Your task to perform on an android device: open chrome privacy settings Image 0: 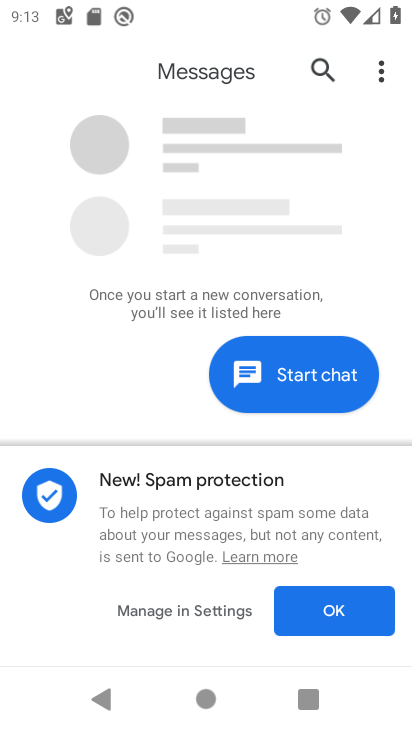
Step 0: press back button
Your task to perform on an android device: open chrome privacy settings Image 1: 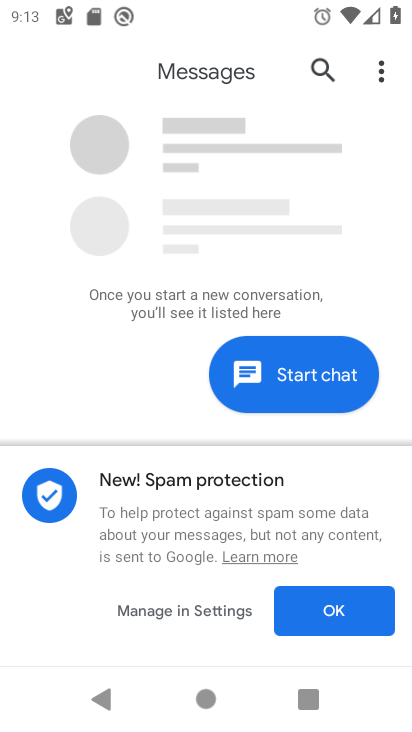
Step 1: press back button
Your task to perform on an android device: open chrome privacy settings Image 2: 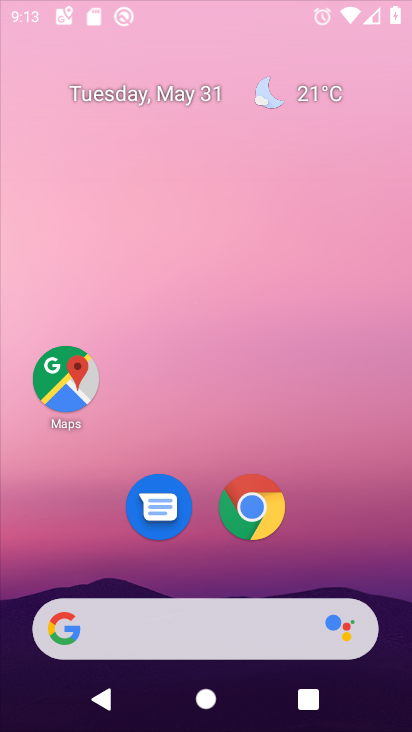
Step 2: press back button
Your task to perform on an android device: open chrome privacy settings Image 3: 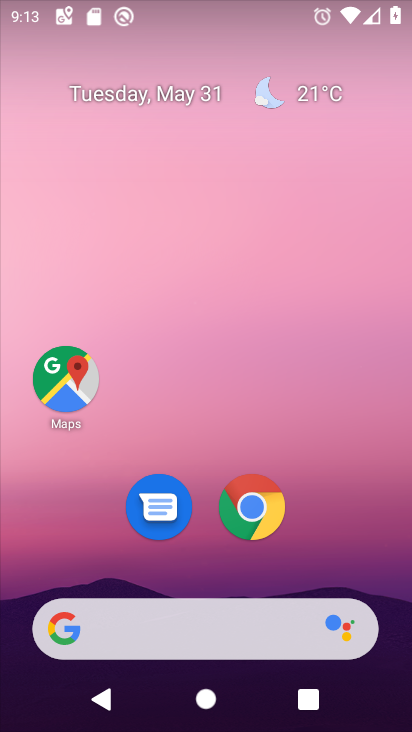
Step 3: drag from (233, 686) to (242, 26)
Your task to perform on an android device: open chrome privacy settings Image 4: 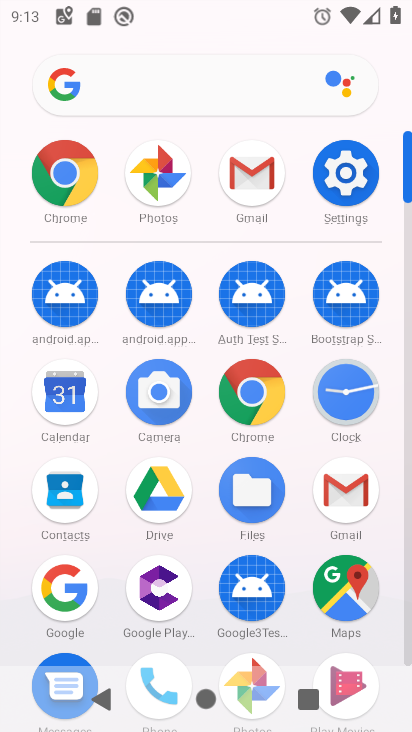
Step 4: click (350, 186)
Your task to perform on an android device: open chrome privacy settings Image 5: 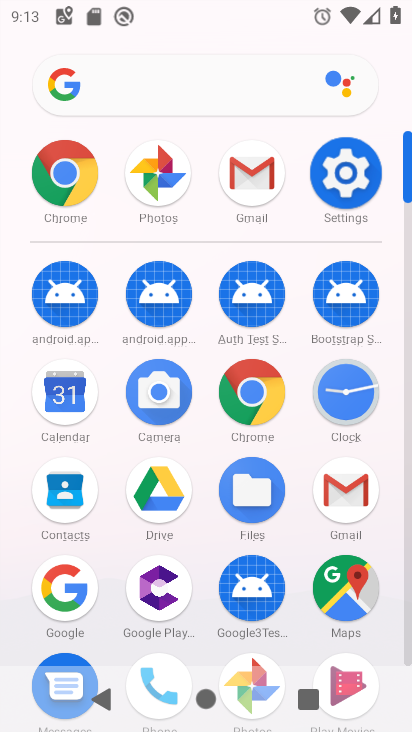
Step 5: click (351, 205)
Your task to perform on an android device: open chrome privacy settings Image 6: 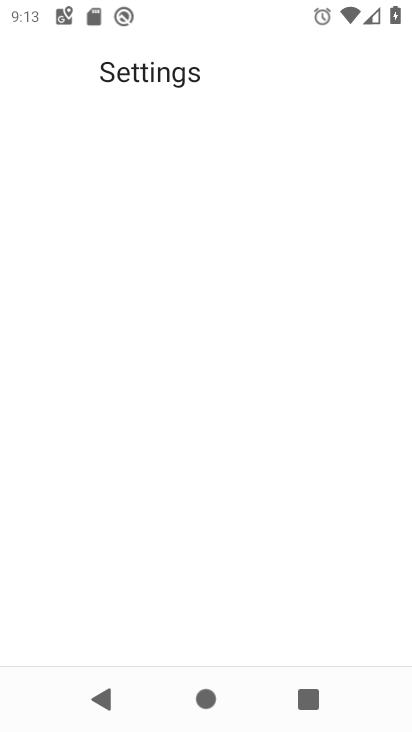
Step 6: click (352, 206)
Your task to perform on an android device: open chrome privacy settings Image 7: 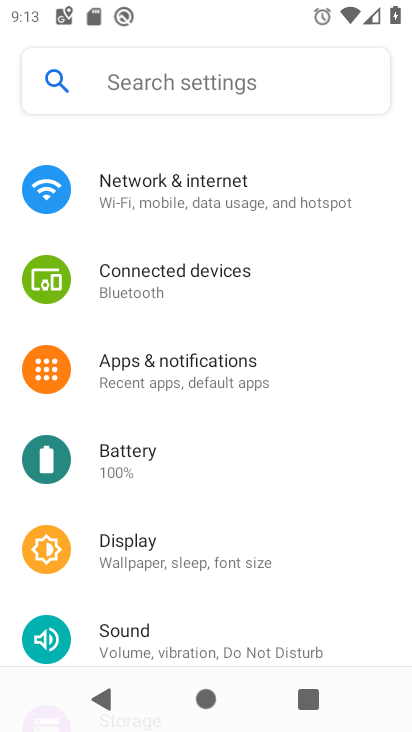
Step 7: click (356, 205)
Your task to perform on an android device: open chrome privacy settings Image 8: 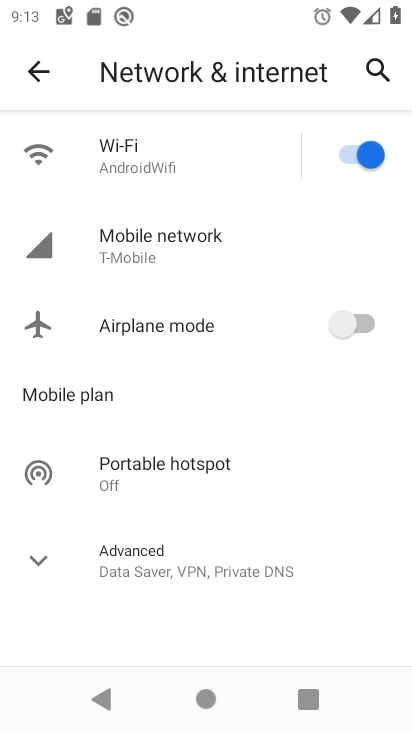
Step 8: click (38, 70)
Your task to perform on an android device: open chrome privacy settings Image 9: 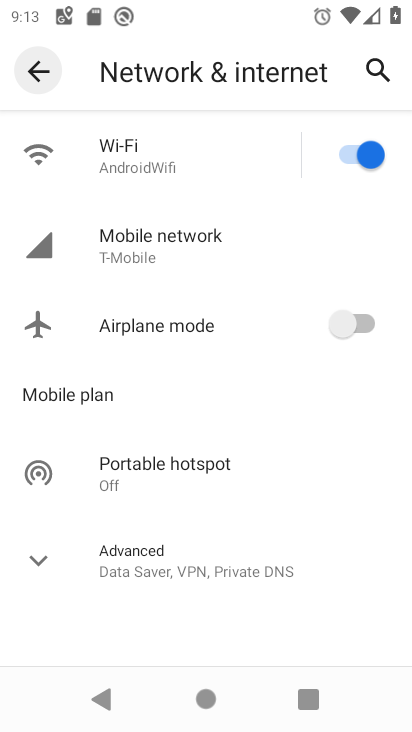
Step 9: click (37, 71)
Your task to perform on an android device: open chrome privacy settings Image 10: 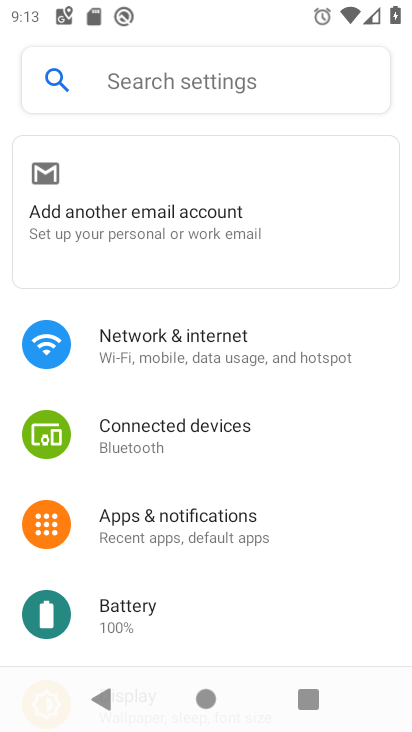
Step 10: press home button
Your task to perform on an android device: open chrome privacy settings Image 11: 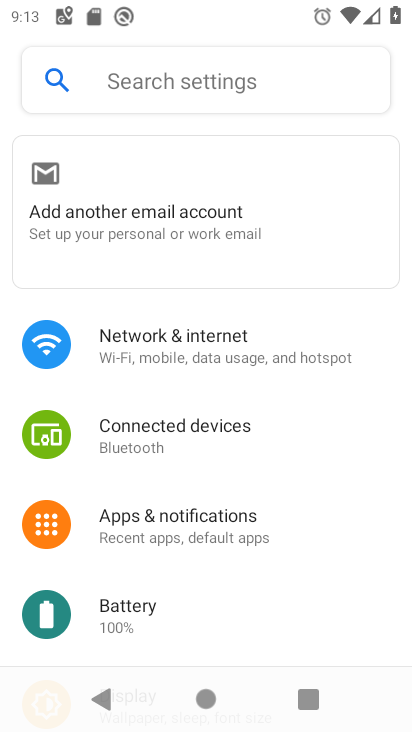
Step 11: press home button
Your task to perform on an android device: open chrome privacy settings Image 12: 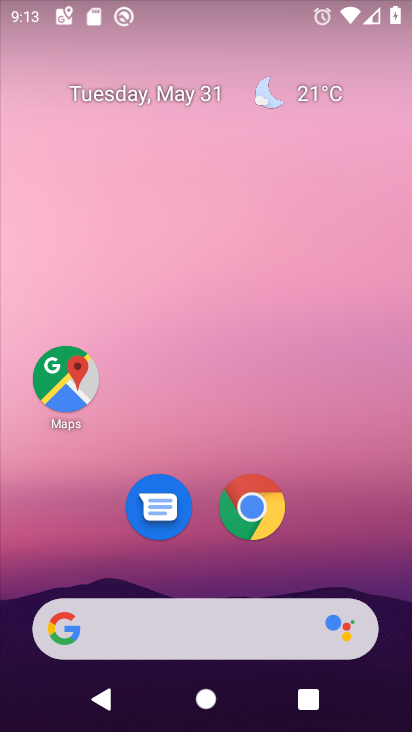
Step 12: drag from (265, 603) to (231, 38)
Your task to perform on an android device: open chrome privacy settings Image 13: 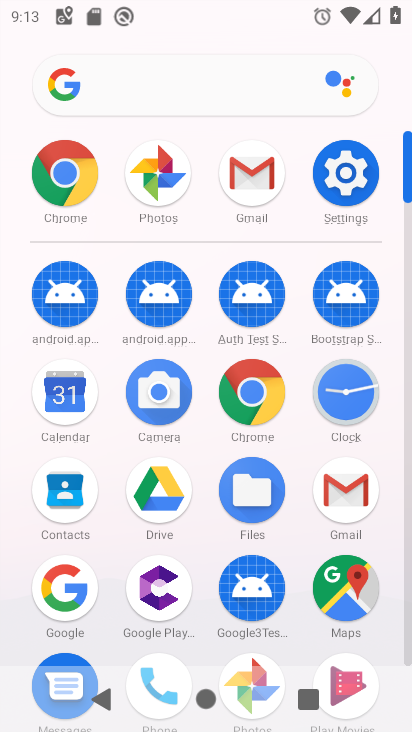
Step 13: click (60, 186)
Your task to perform on an android device: open chrome privacy settings Image 14: 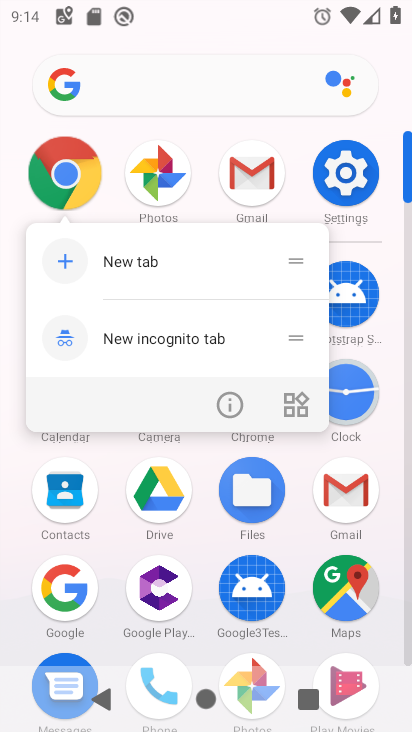
Step 14: click (61, 186)
Your task to perform on an android device: open chrome privacy settings Image 15: 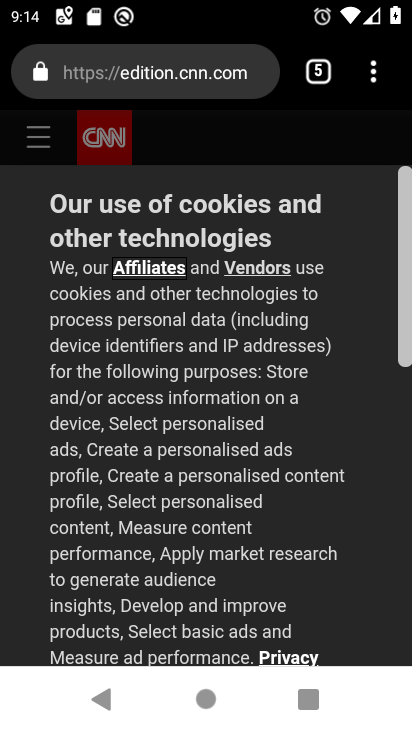
Step 15: drag from (372, 77) to (130, 511)
Your task to perform on an android device: open chrome privacy settings Image 16: 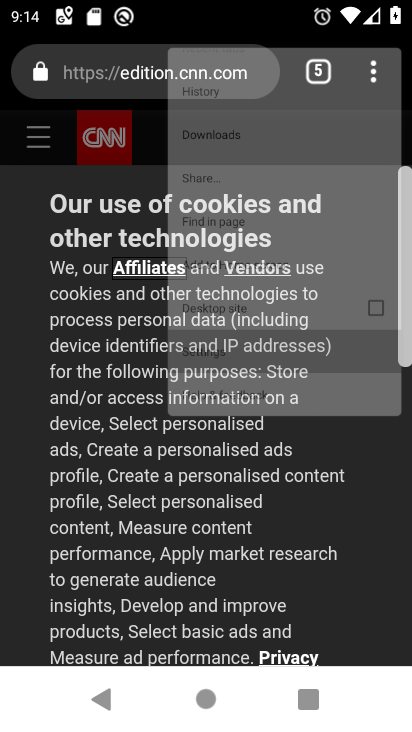
Step 16: click (131, 510)
Your task to perform on an android device: open chrome privacy settings Image 17: 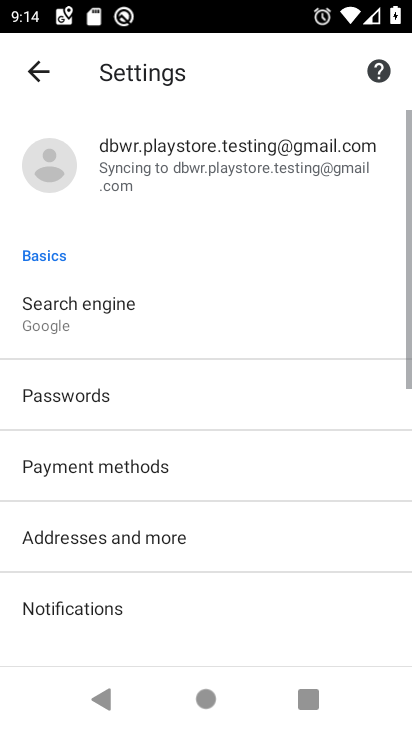
Step 17: drag from (122, 530) to (79, 149)
Your task to perform on an android device: open chrome privacy settings Image 18: 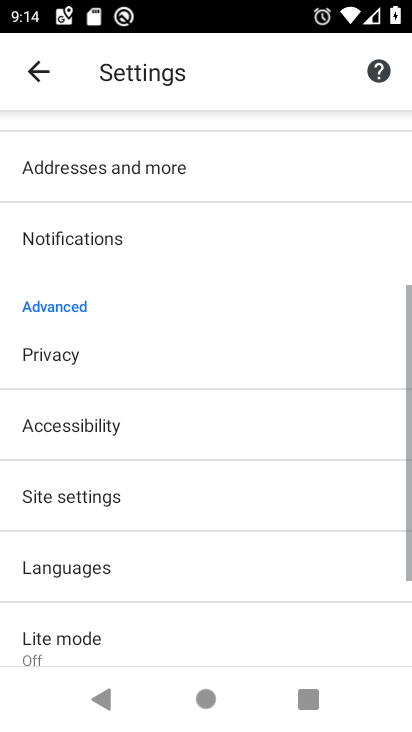
Step 18: drag from (131, 517) to (158, 223)
Your task to perform on an android device: open chrome privacy settings Image 19: 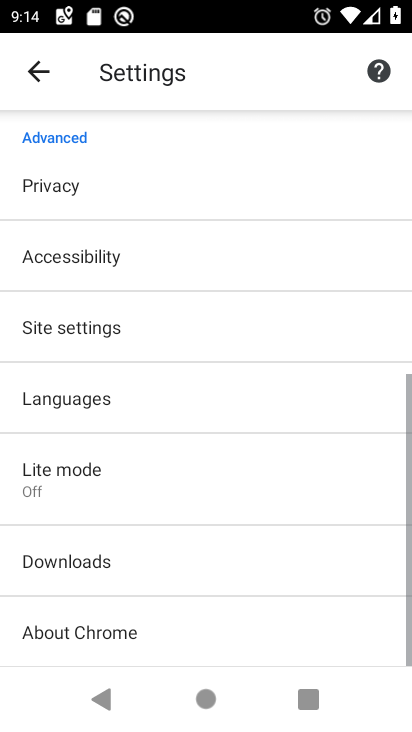
Step 19: drag from (148, 466) to (173, 183)
Your task to perform on an android device: open chrome privacy settings Image 20: 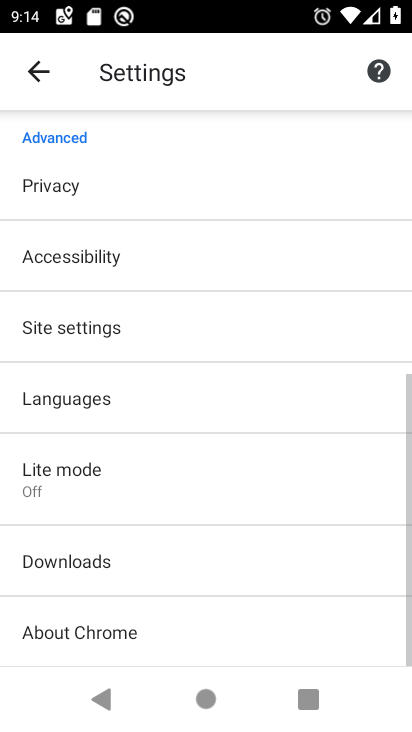
Step 20: click (63, 187)
Your task to perform on an android device: open chrome privacy settings Image 21: 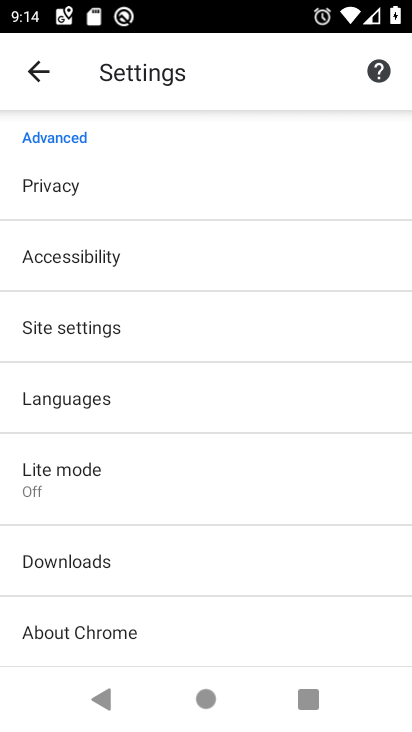
Step 21: click (63, 187)
Your task to perform on an android device: open chrome privacy settings Image 22: 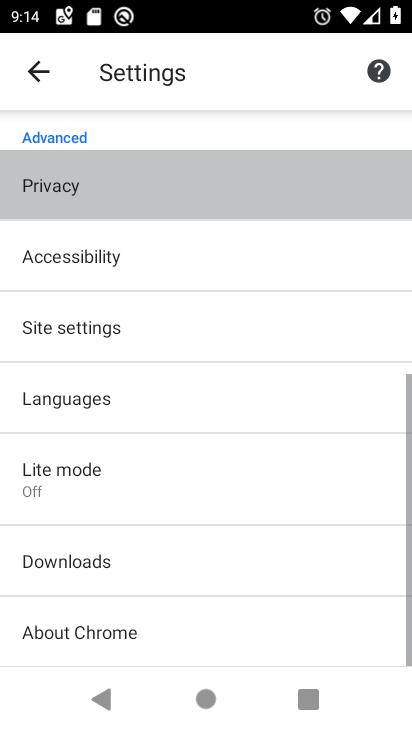
Step 22: click (62, 187)
Your task to perform on an android device: open chrome privacy settings Image 23: 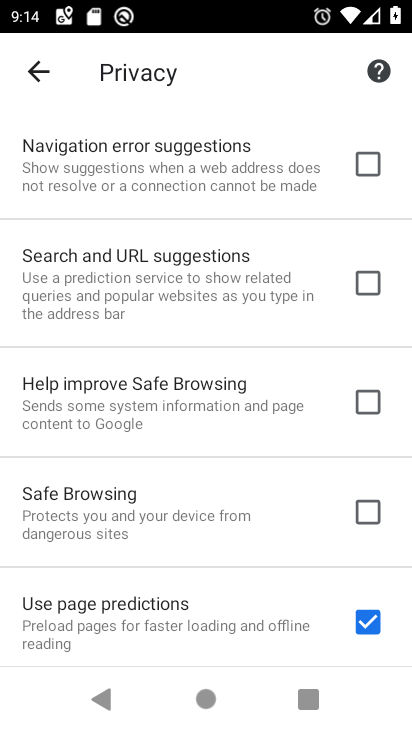
Step 23: click (366, 168)
Your task to perform on an android device: open chrome privacy settings Image 24: 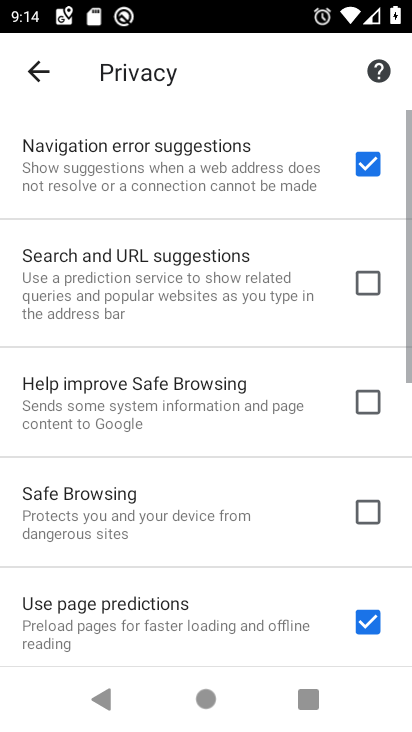
Step 24: task complete